Your task to perform on an android device: toggle javascript in the chrome app Image 0: 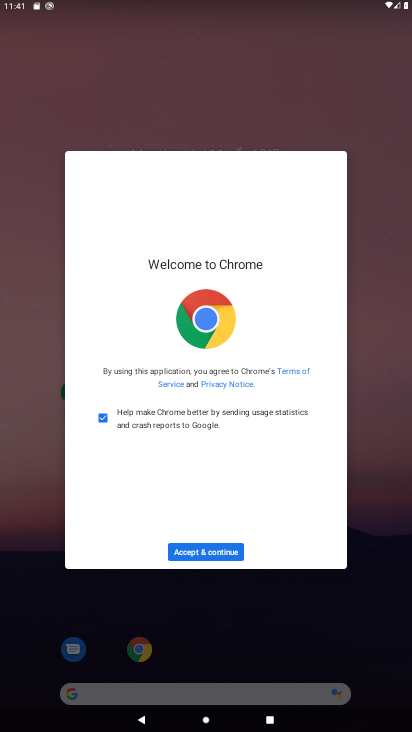
Step 0: press home button
Your task to perform on an android device: toggle javascript in the chrome app Image 1: 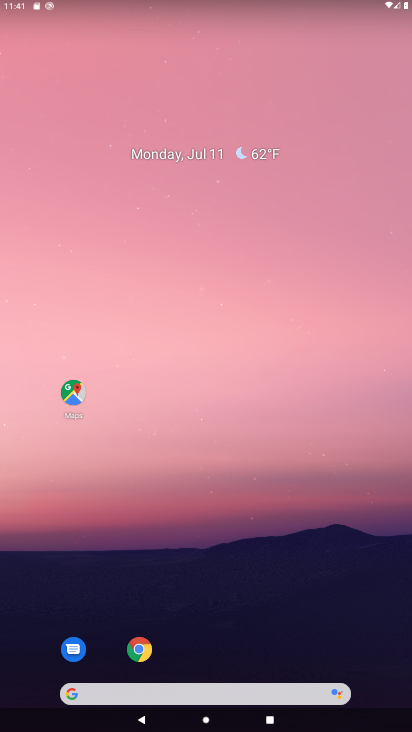
Step 1: click (148, 658)
Your task to perform on an android device: toggle javascript in the chrome app Image 2: 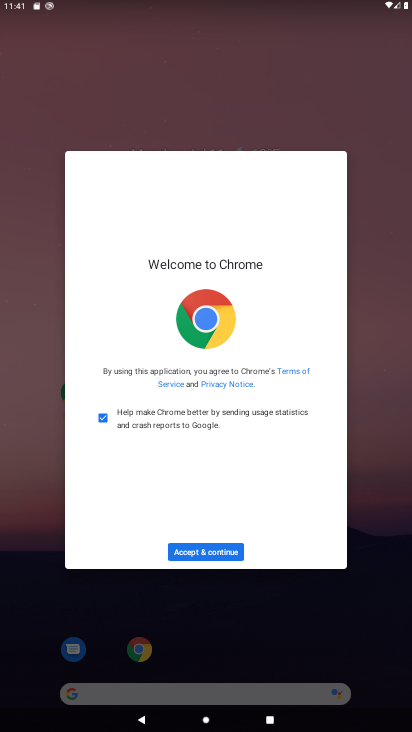
Step 2: click (215, 549)
Your task to perform on an android device: toggle javascript in the chrome app Image 3: 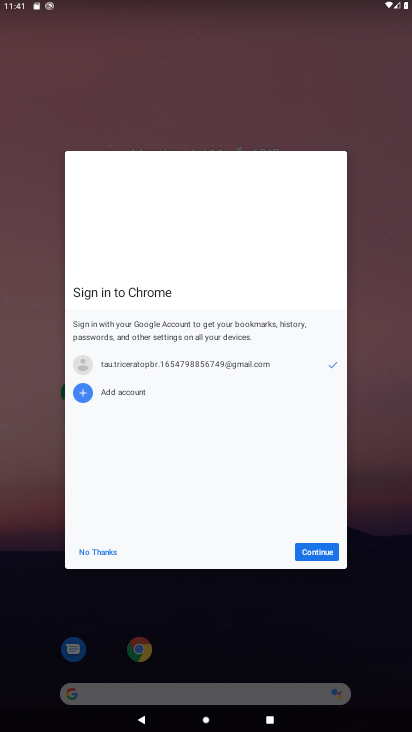
Step 3: click (301, 545)
Your task to perform on an android device: toggle javascript in the chrome app Image 4: 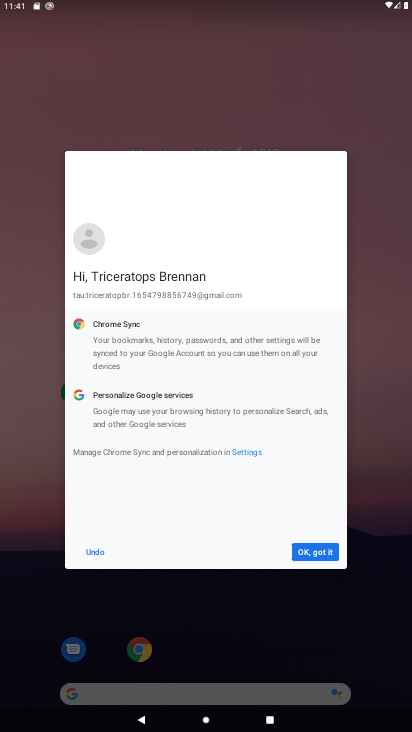
Step 4: click (317, 552)
Your task to perform on an android device: toggle javascript in the chrome app Image 5: 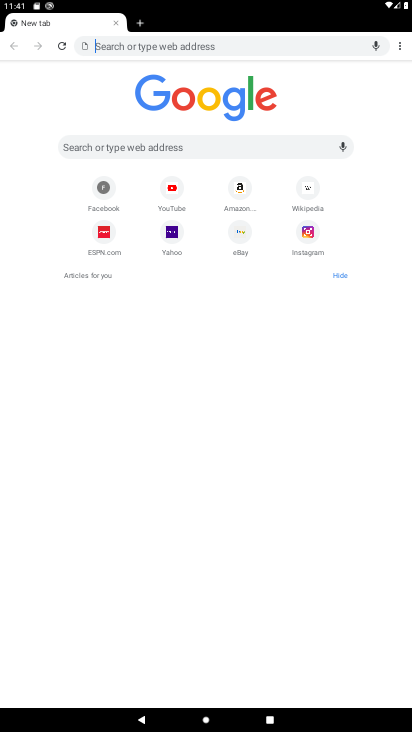
Step 5: click (397, 47)
Your task to perform on an android device: toggle javascript in the chrome app Image 6: 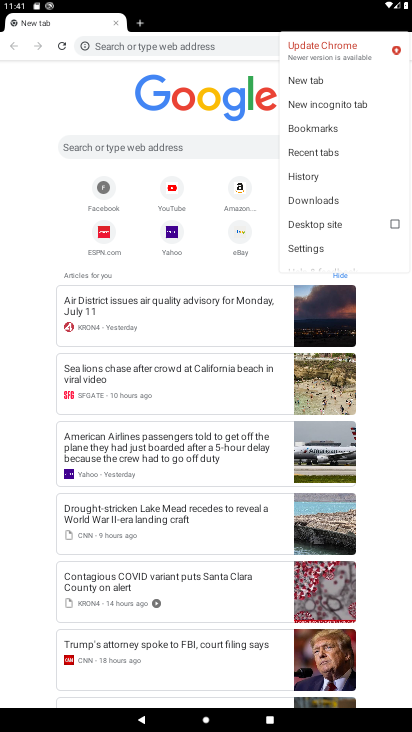
Step 6: click (310, 247)
Your task to perform on an android device: toggle javascript in the chrome app Image 7: 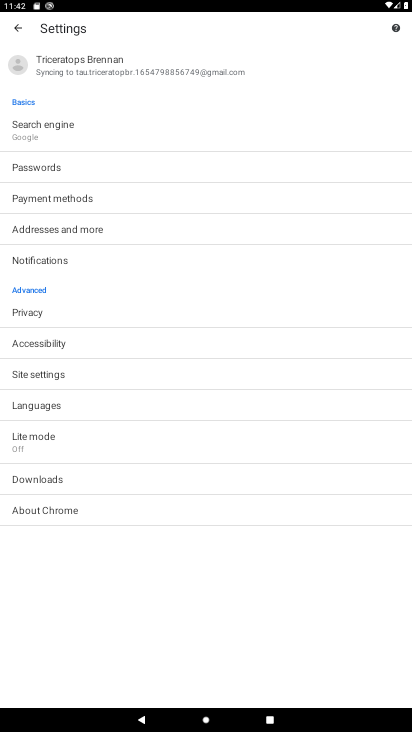
Step 7: click (55, 370)
Your task to perform on an android device: toggle javascript in the chrome app Image 8: 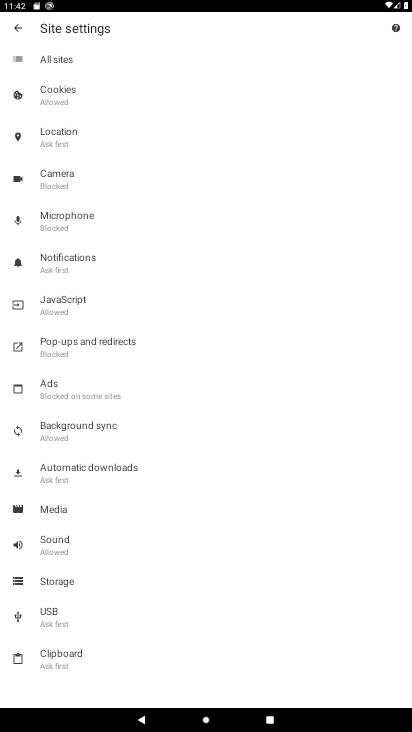
Step 8: click (67, 296)
Your task to perform on an android device: toggle javascript in the chrome app Image 9: 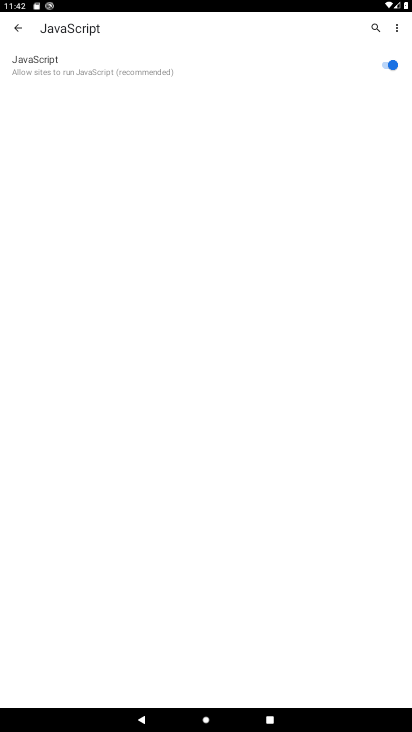
Step 9: click (390, 61)
Your task to perform on an android device: toggle javascript in the chrome app Image 10: 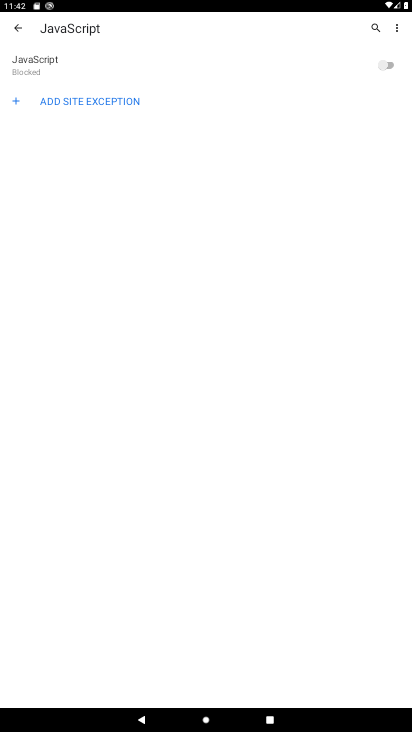
Step 10: task complete